Your task to perform on an android device: Check the news Image 0: 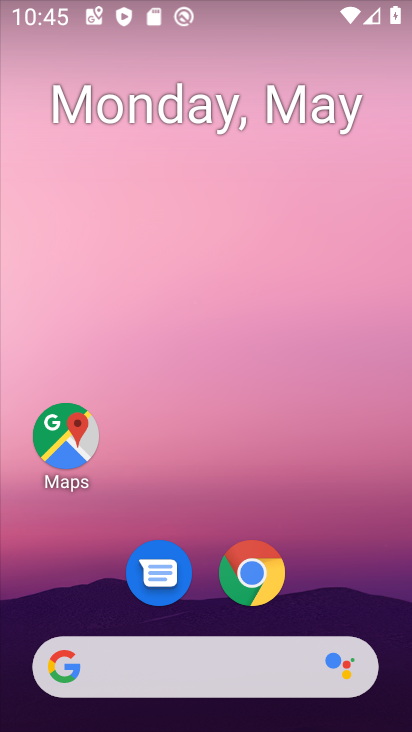
Step 0: drag from (177, 608) to (289, 45)
Your task to perform on an android device: Check the news Image 1: 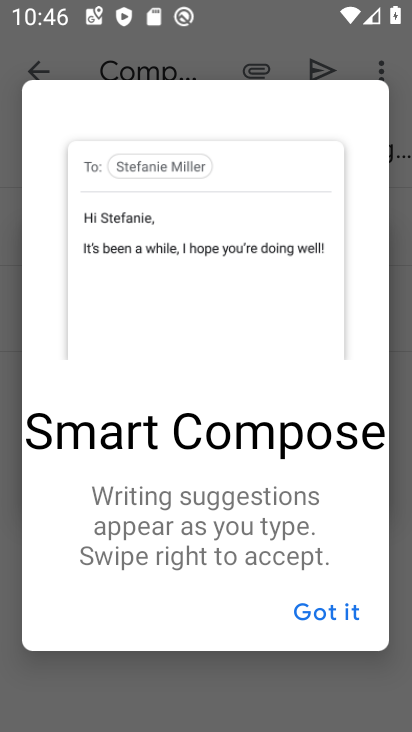
Step 1: press back button
Your task to perform on an android device: Check the news Image 2: 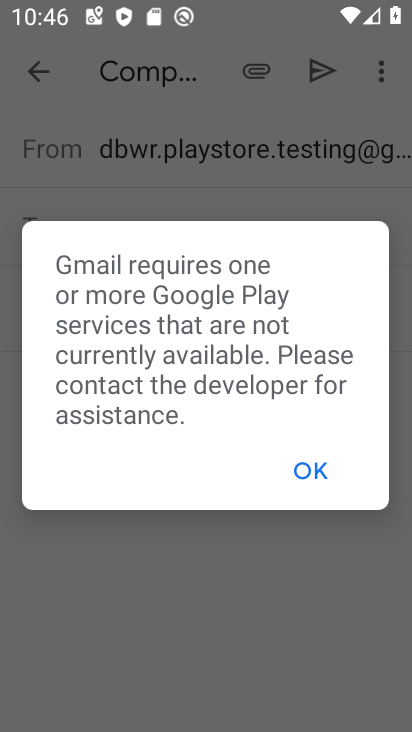
Step 2: press home button
Your task to perform on an android device: Check the news Image 3: 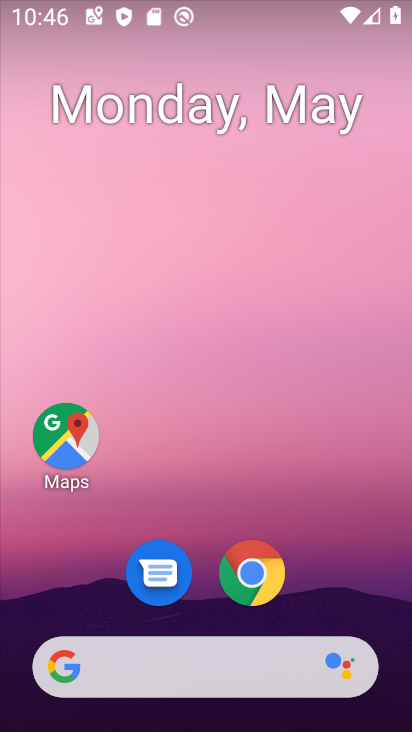
Step 3: click (178, 678)
Your task to perform on an android device: Check the news Image 4: 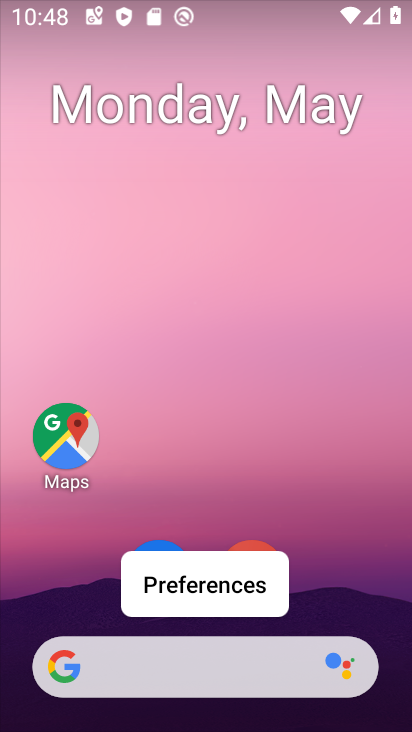
Step 4: click (177, 672)
Your task to perform on an android device: Check the news Image 5: 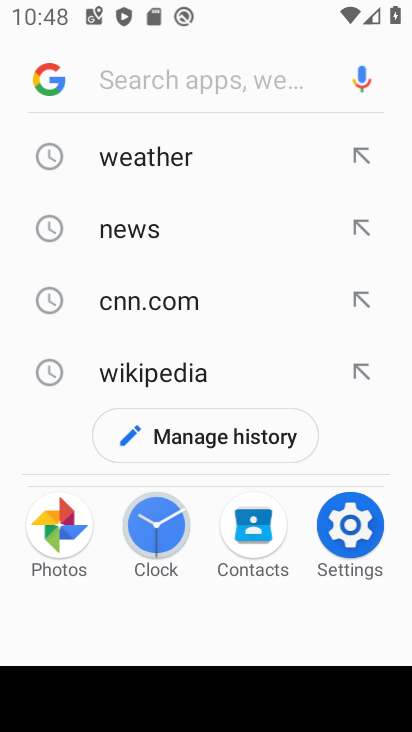
Step 5: click (135, 230)
Your task to perform on an android device: Check the news Image 6: 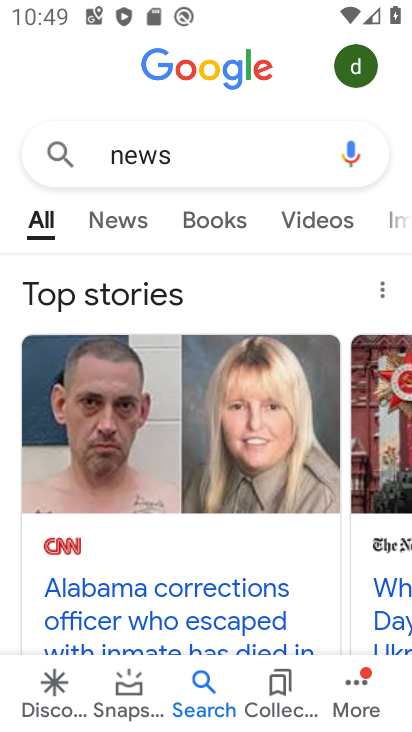
Step 6: task complete